Your task to perform on an android device: open chrome and create a bookmark for the current page Image 0: 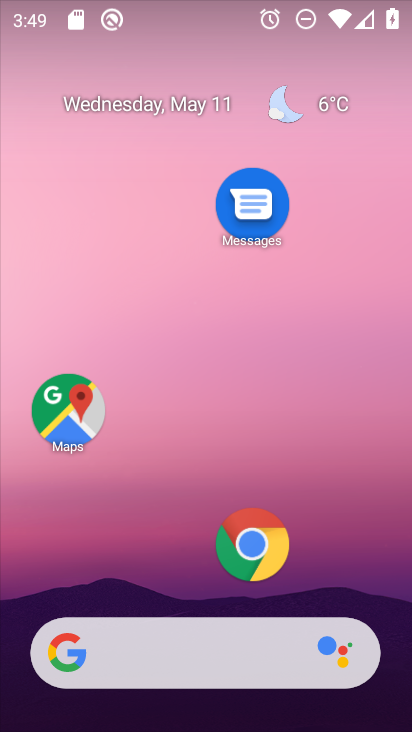
Step 0: click (254, 552)
Your task to perform on an android device: open chrome and create a bookmark for the current page Image 1: 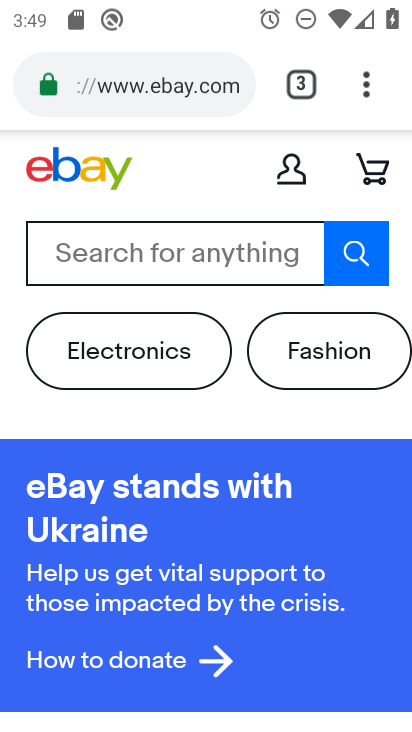
Step 1: task complete